Your task to perform on an android device: Open internet settings Image 0: 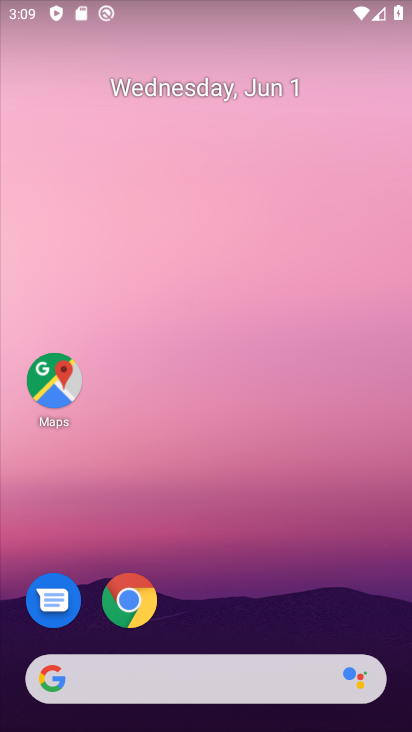
Step 0: drag from (227, 584) to (195, 54)
Your task to perform on an android device: Open internet settings Image 1: 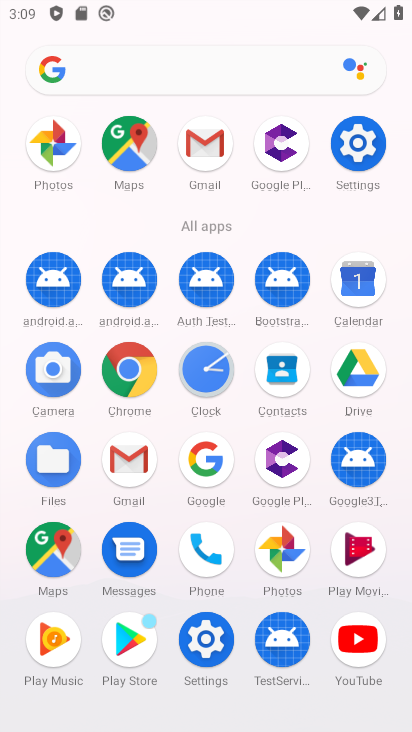
Step 1: click (351, 151)
Your task to perform on an android device: Open internet settings Image 2: 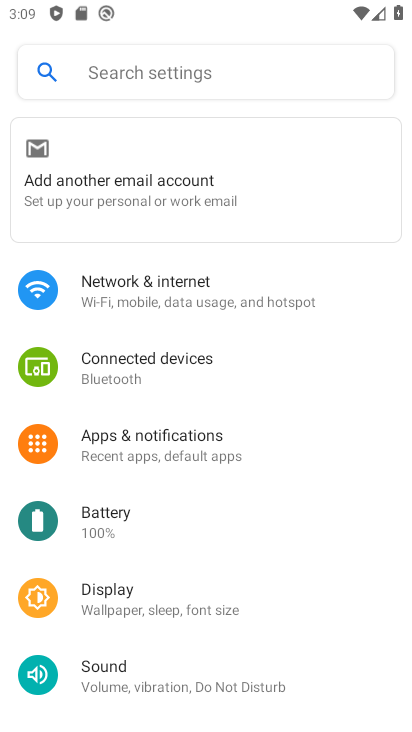
Step 2: click (183, 304)
Your task to perform on an android device: Open internet settings Image 3: 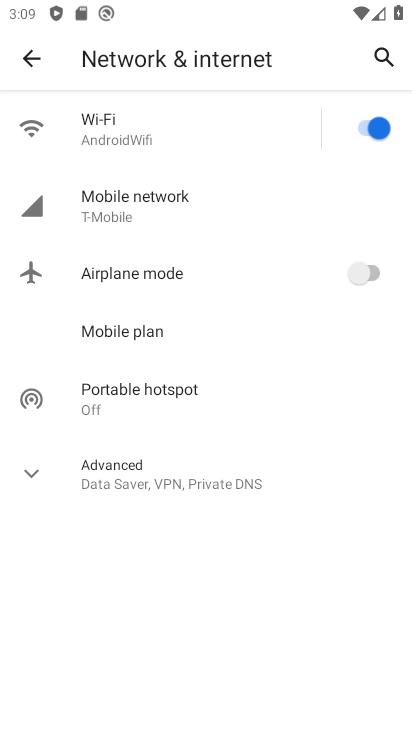
Step 3: task complete